Your task to perform on an android device: Play the last video I watched on Youtube Image 0: 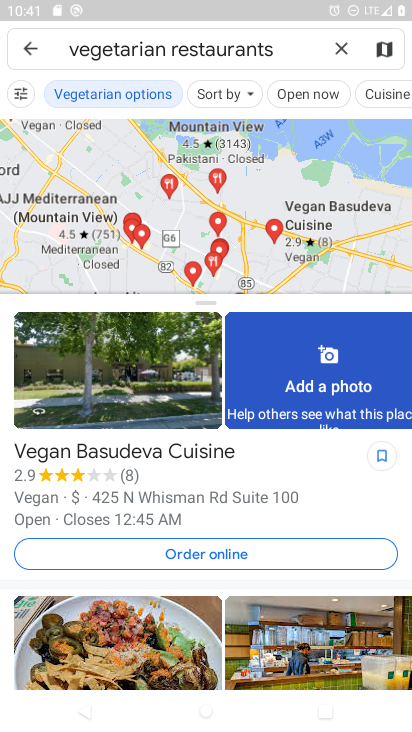
Step 0: press home button
Your task to perform on an android device: Play the last video I watched on Youtube Image 1: 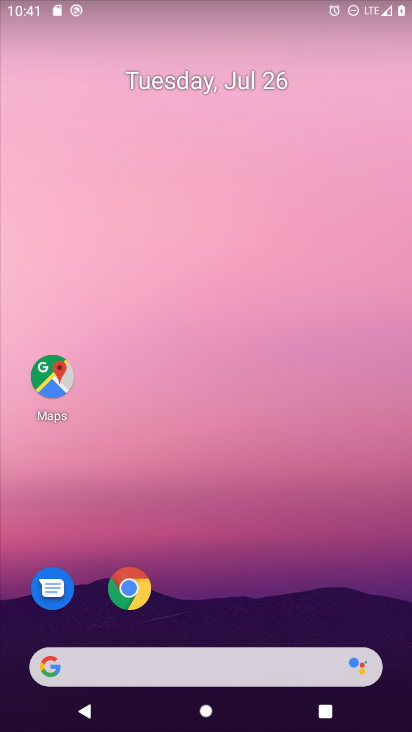
Step 1: click (301, 147)
Your task to perform on an android device: Play the last video I watched on Youtube Image 2: 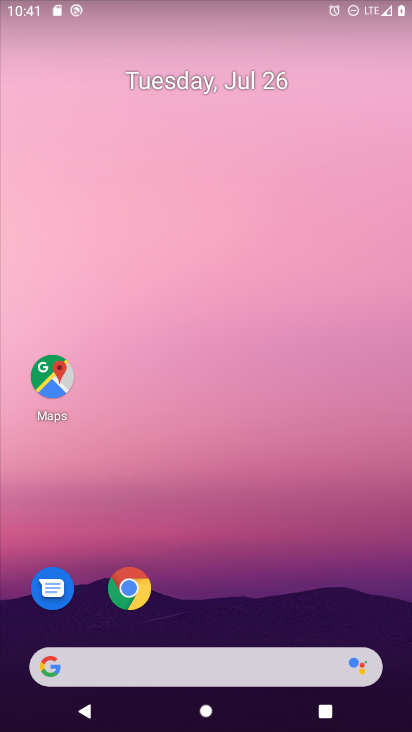
Step 2: drag from (188, 344) to (195, 93)
Your task to perform on an android device: Play the last video I watched on Youtube Image 3: 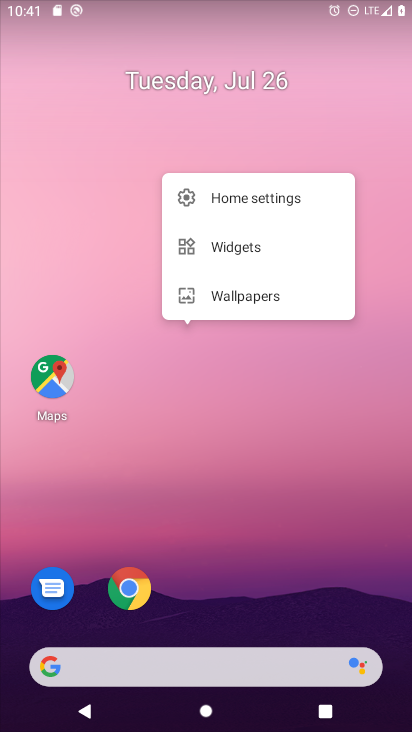
Step 3: click (185, 457)
Your task to perform on an android device: Play the last video I watched on Youtube Image 4: 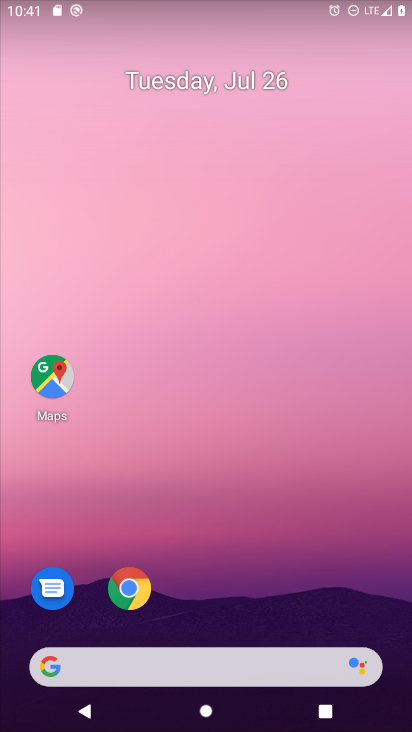
Step 4: drag from (205, 615) to (247, 112)
Your task to perform on an android device: Play the last video I watched on Youtube Image 5: 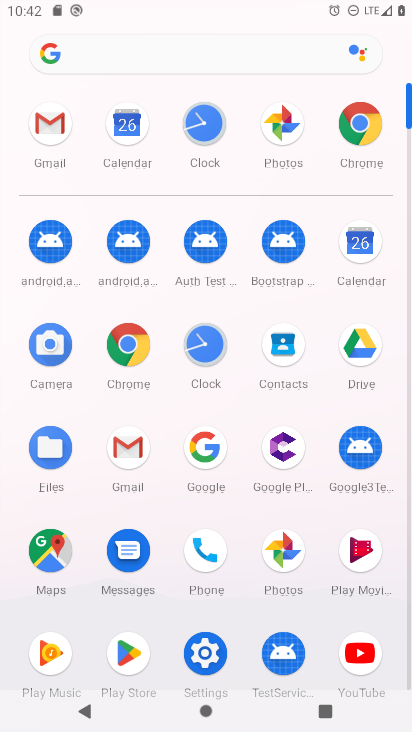
Step 5: click (361, 663)
Your task to perform on an android device: Play the last video I watched on Youtube Image 6: 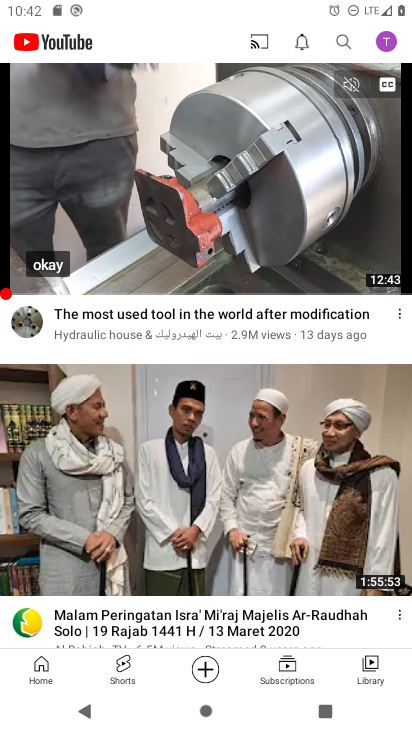
Step 6: click (378, 668)
Your task to perform on an android device: Play the last video I watched on Youtube Image 7: 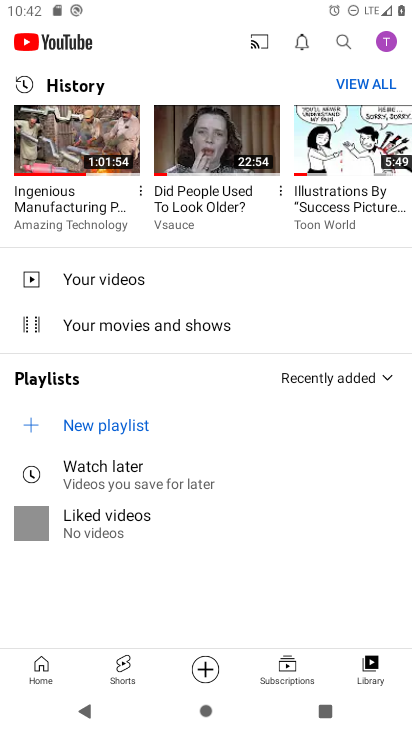
Step 7: click (99, 166)
Your task to perform on an android device: Play the last video I watched on Youtube Image 8: 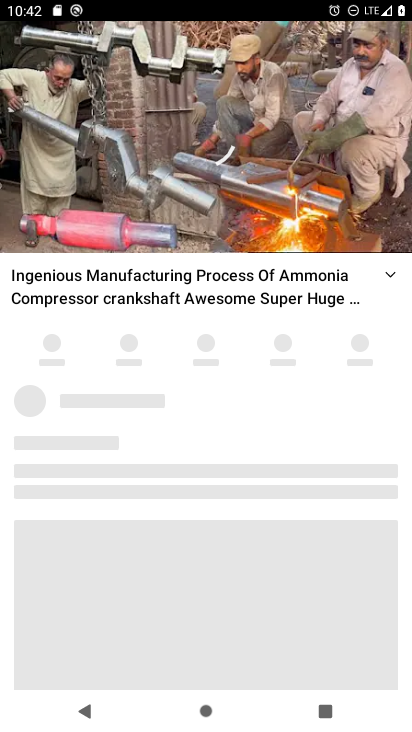
Step 8: task complete